Your task to perform on an android device: refresh tabs in the chrome app Image 0: 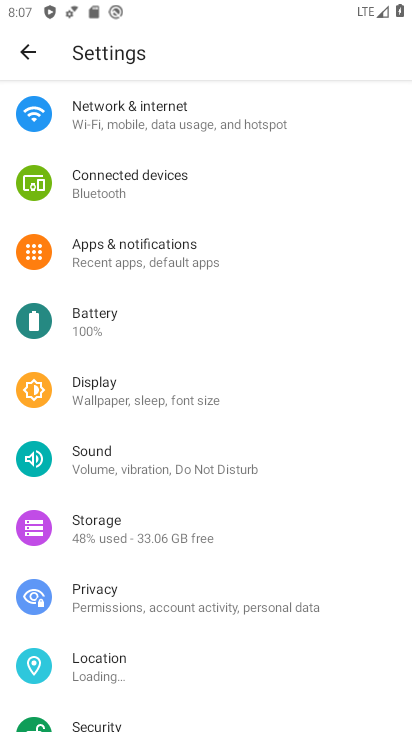
Step 0: press home button
Your task to perform on an android device: refresh tabs in the chrome app Image 1: 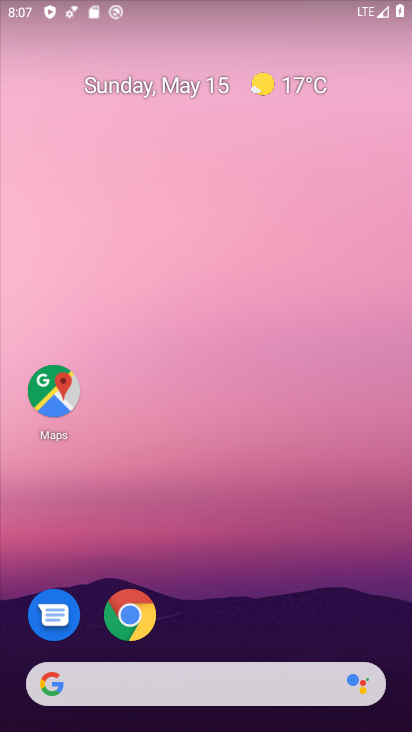
Step 1: click (120, 623)
Your task to perform on an android device: refresh tabs in the chrome app Image 2: 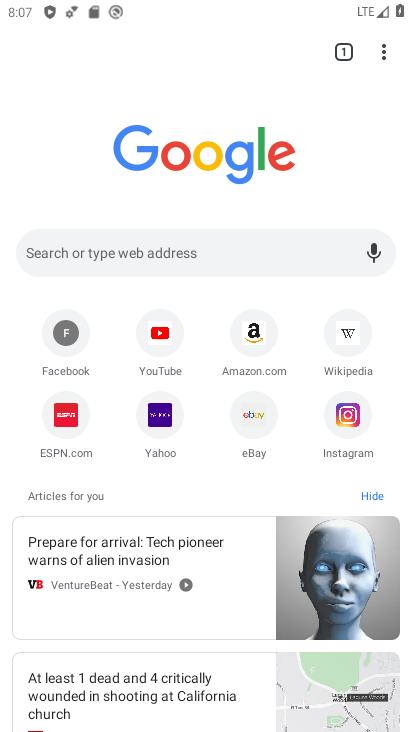
Step 2: click (392, 49)
Your task to perform on an android device: refresh tabs in the chrome app Image 3: 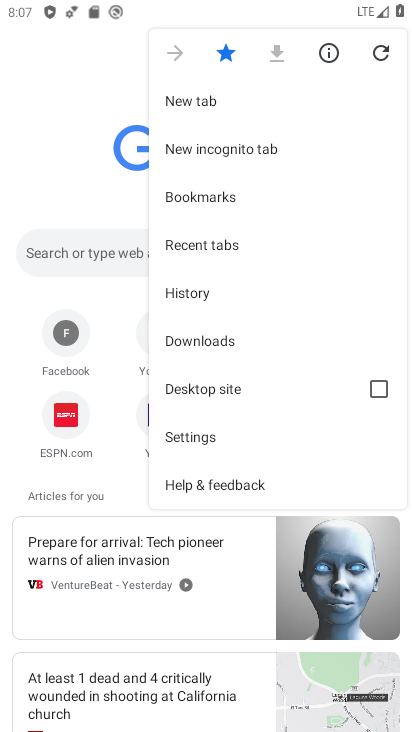
Step 3: click (380, 49)
Your task to perform on an android device: refresh tabs in the chrome app Image 4: 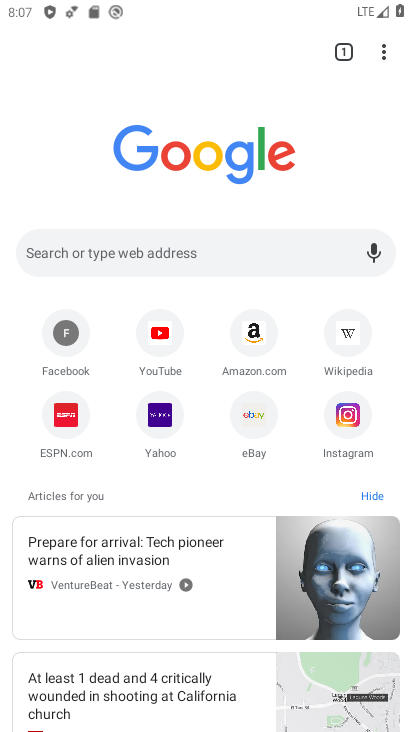
Step 4: task complete